Your task to perform on an android device: Go to network settings Image 0: 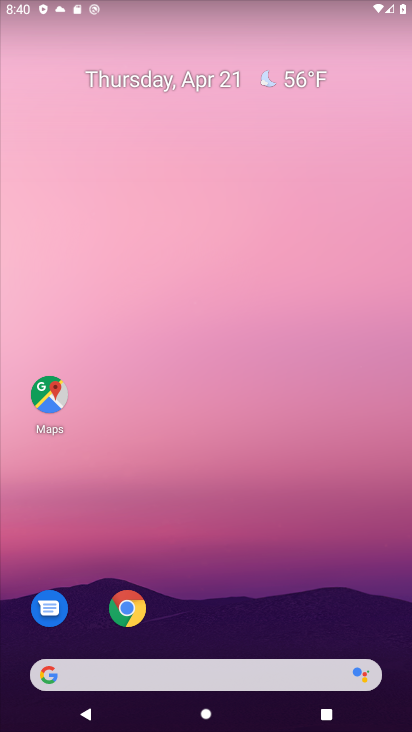
Step 0: drag from (306, 578) to (312, 81)
Your task to perform on an android device: Go to network settings Image 1: 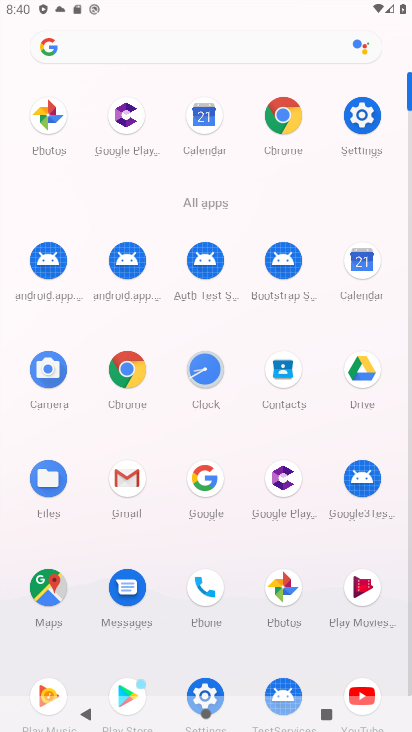
Step 1: click (371, 116)
Your task to perform on an android device: Go to network settings Image 2: 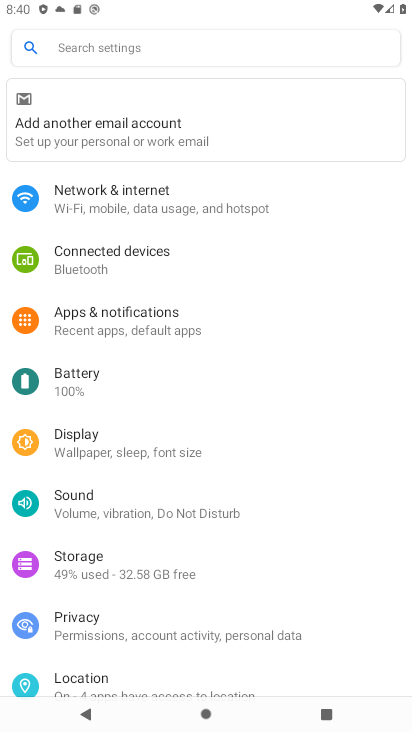
Step 2: click (219, 207)
Your task to perform on an android device: Go to network settings Image 3: 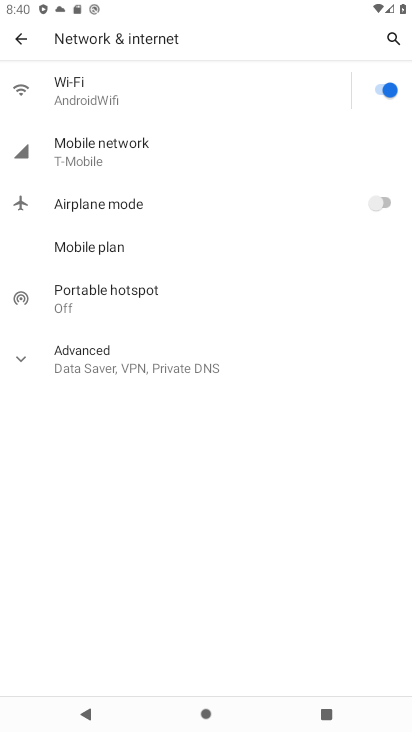
Step 3: task complete